Your task to perform on an android device: View the shopping cart on costco. Image 0: 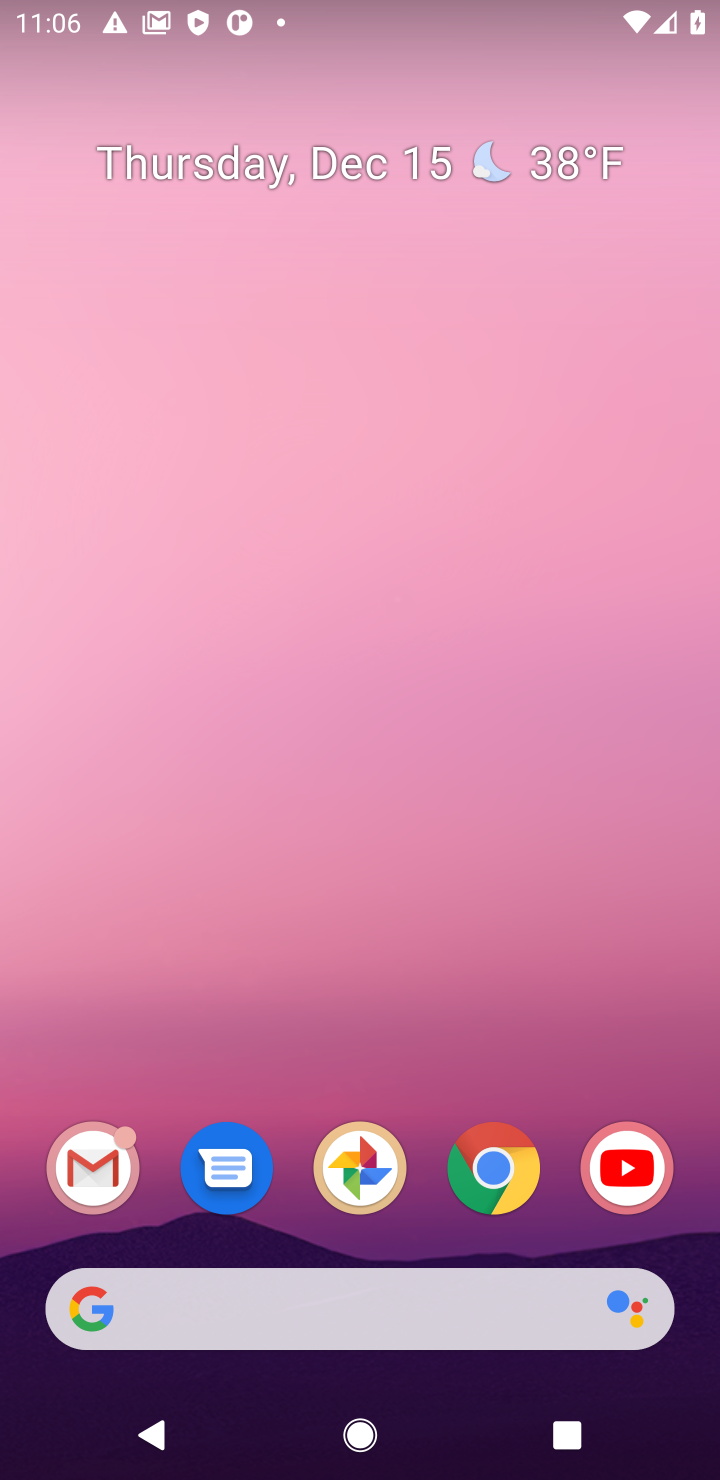
Step 0: click (508, 1167)
Your task to perform on an android device: View the shopping cart on costco. Image 1: 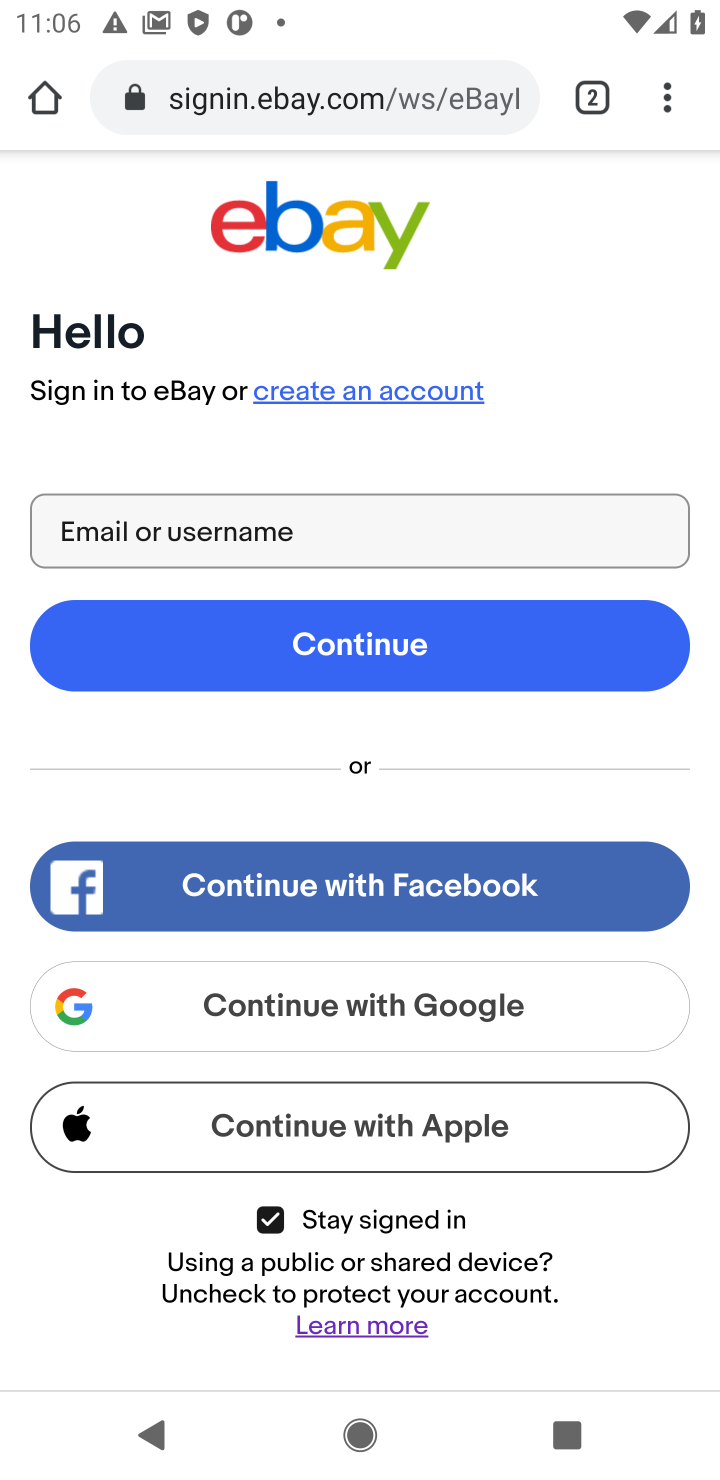
Step 1: click (372, 73)
Your task to perform on an android device: View the shopping cart on costco. Image 2: 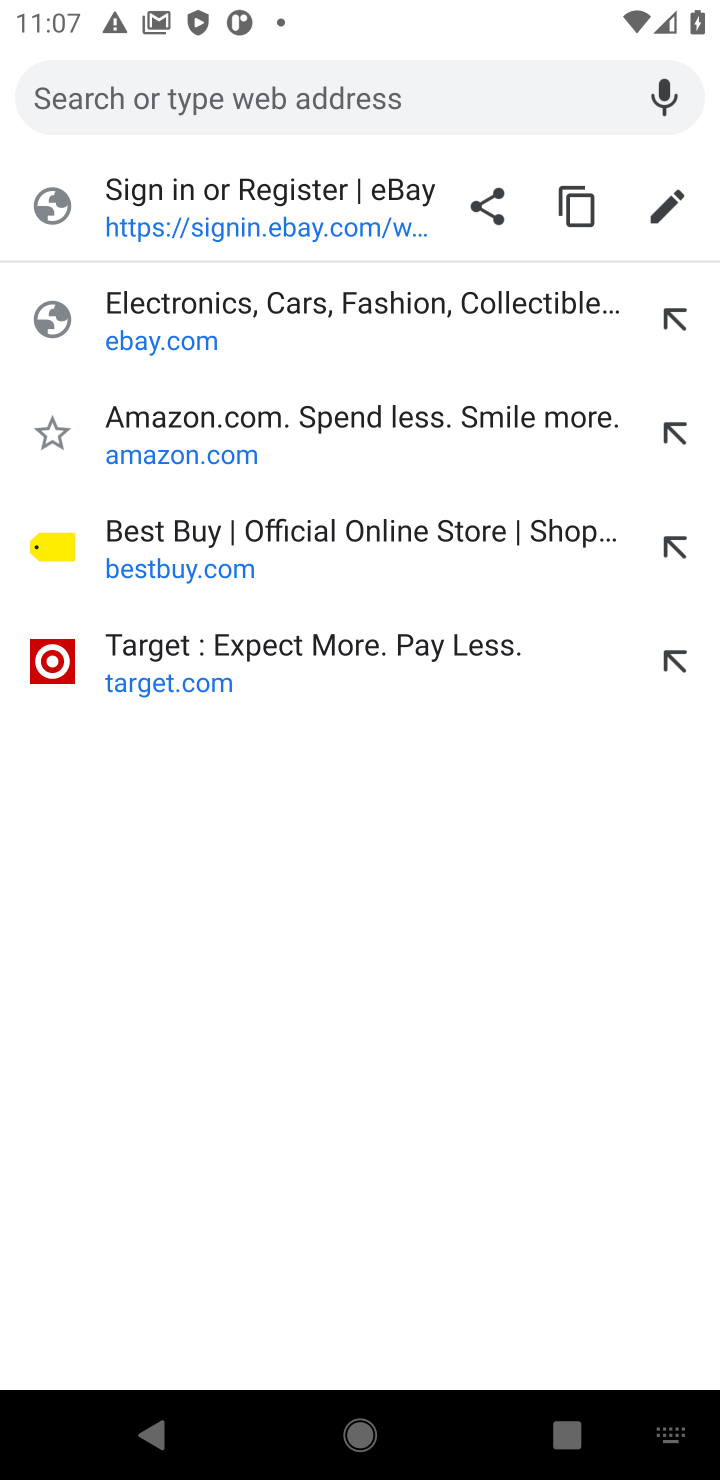
Step 2: type "costco"
Your task to perform on an android device: View the shopping cart on costco. Image 3: 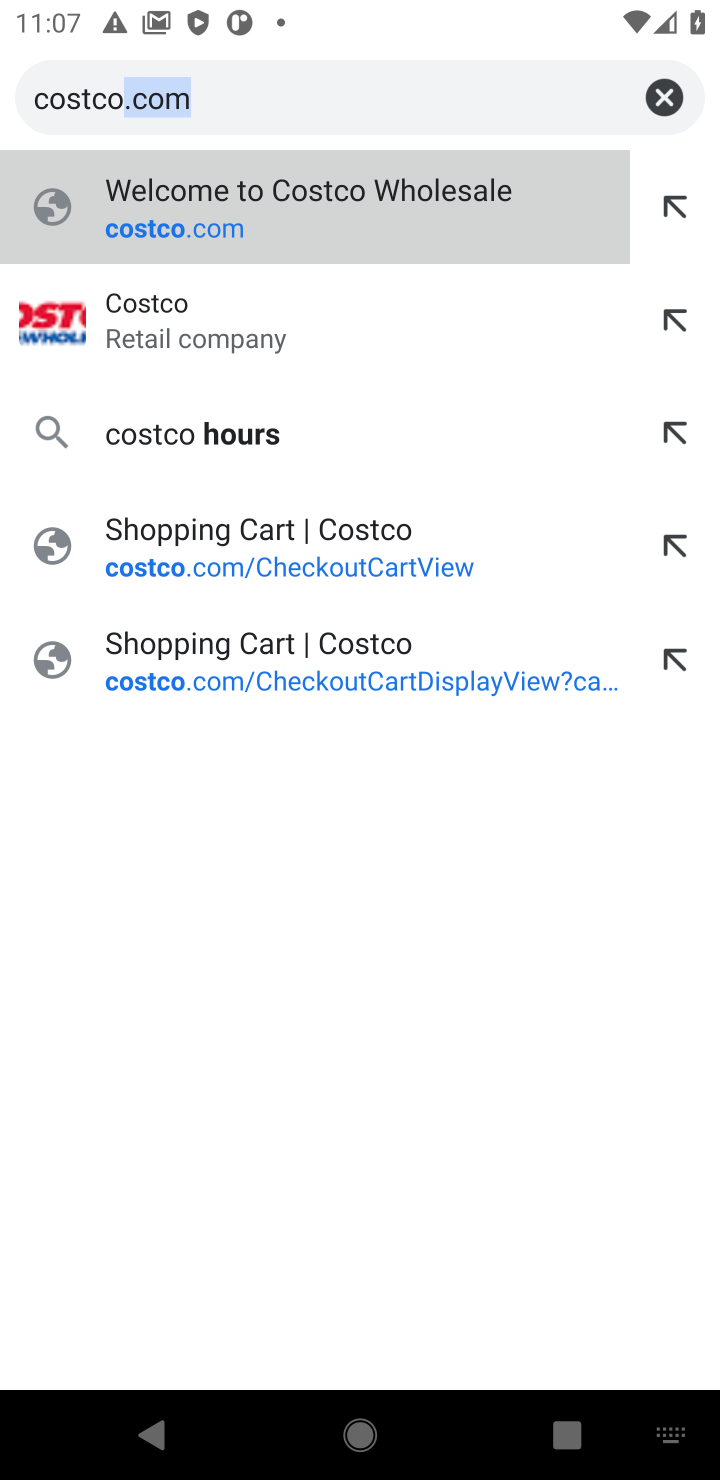
Step 3: click (488, 188)
Your task to perform on an android device: View the shopping cart on costco. Image 4: 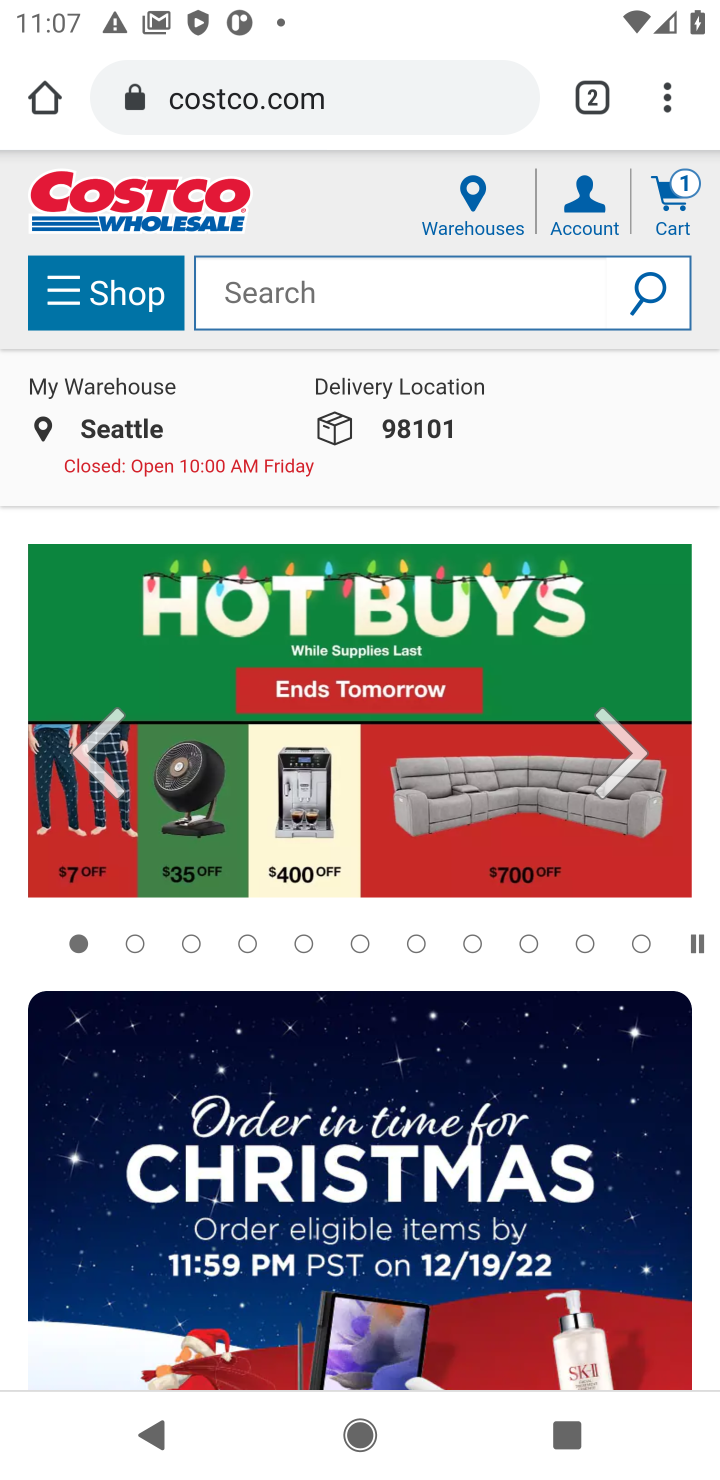
Step 4: click (682, 211)
Your task to perform on an android device: View the shopping cart on costco. Image 5: 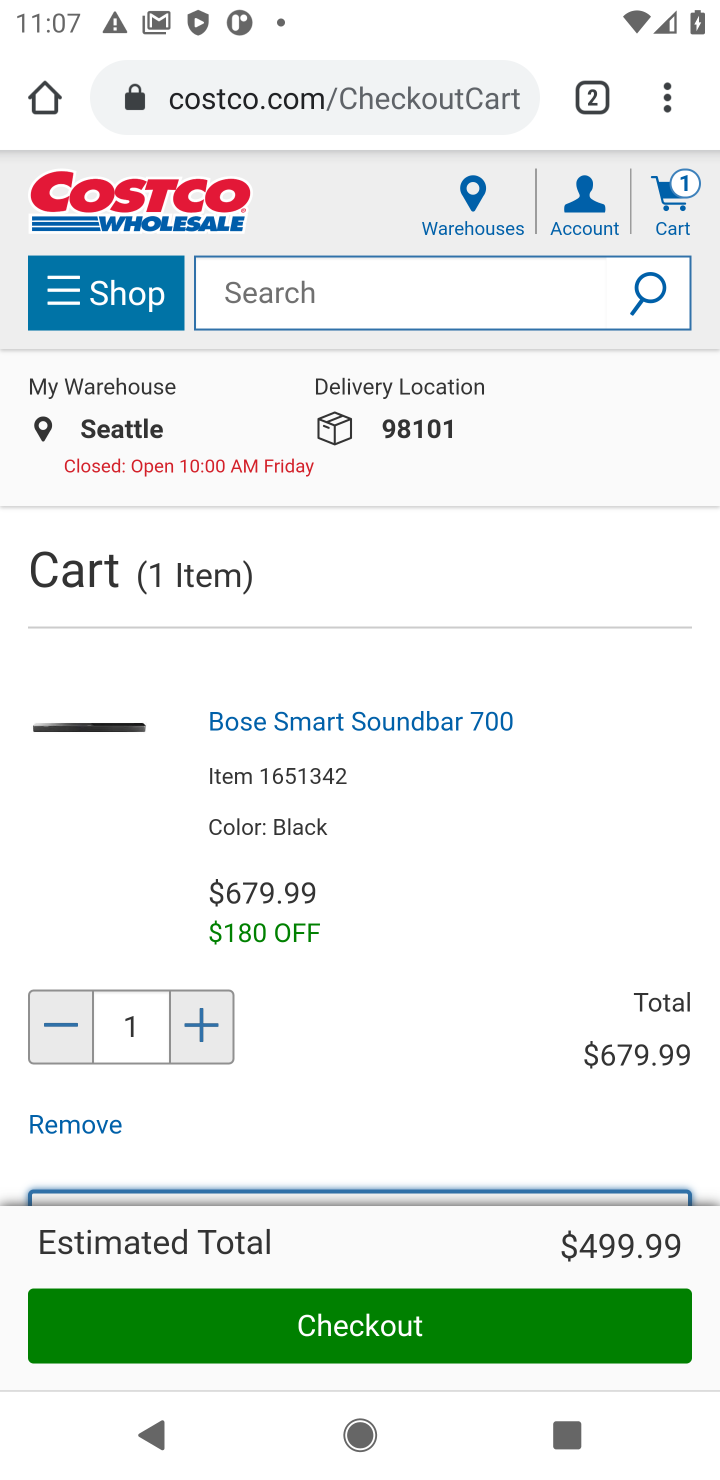
Step 5: click (82, 1128)
Your task to perform on an android device: View the shopping cart on costco. Image 6: 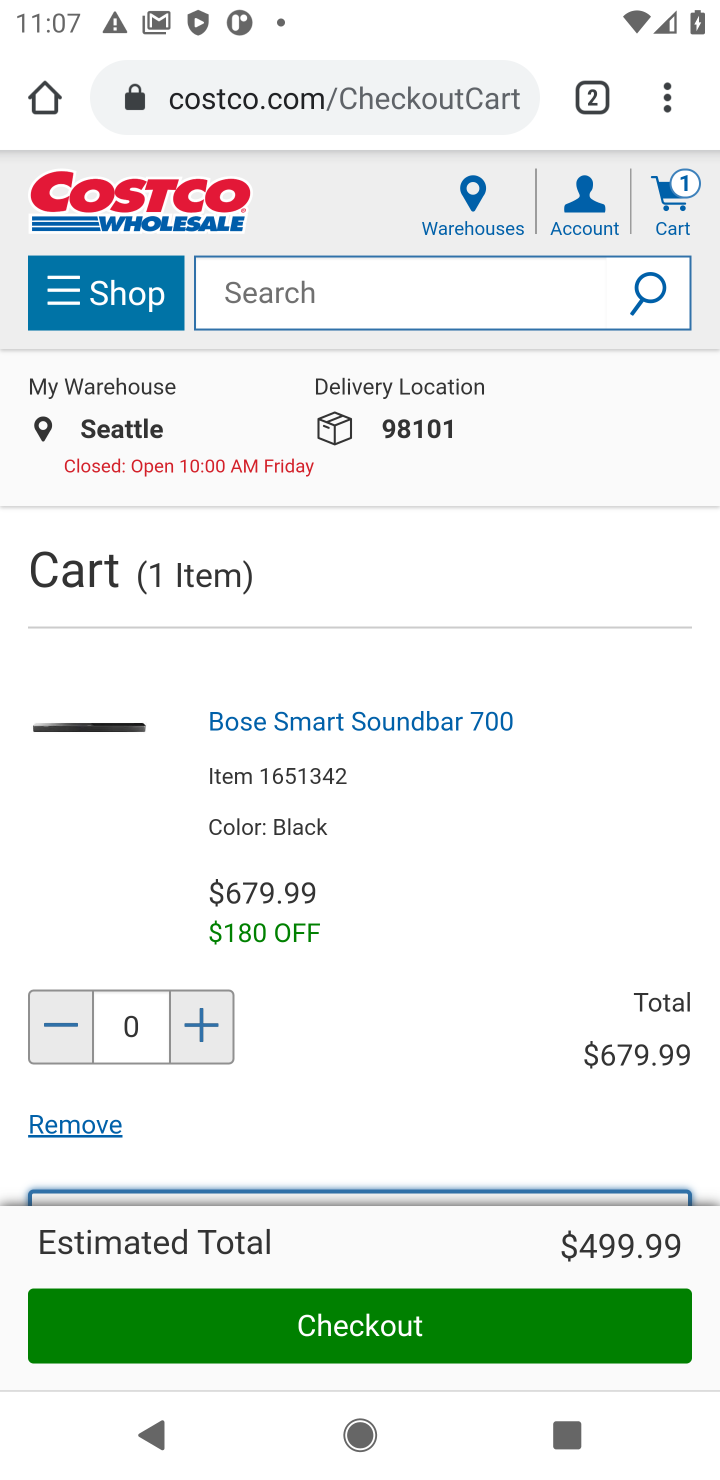
Step 6: click (448, 285)
Your task to perform on an android device: View the shopping cart on costco. Image 7: 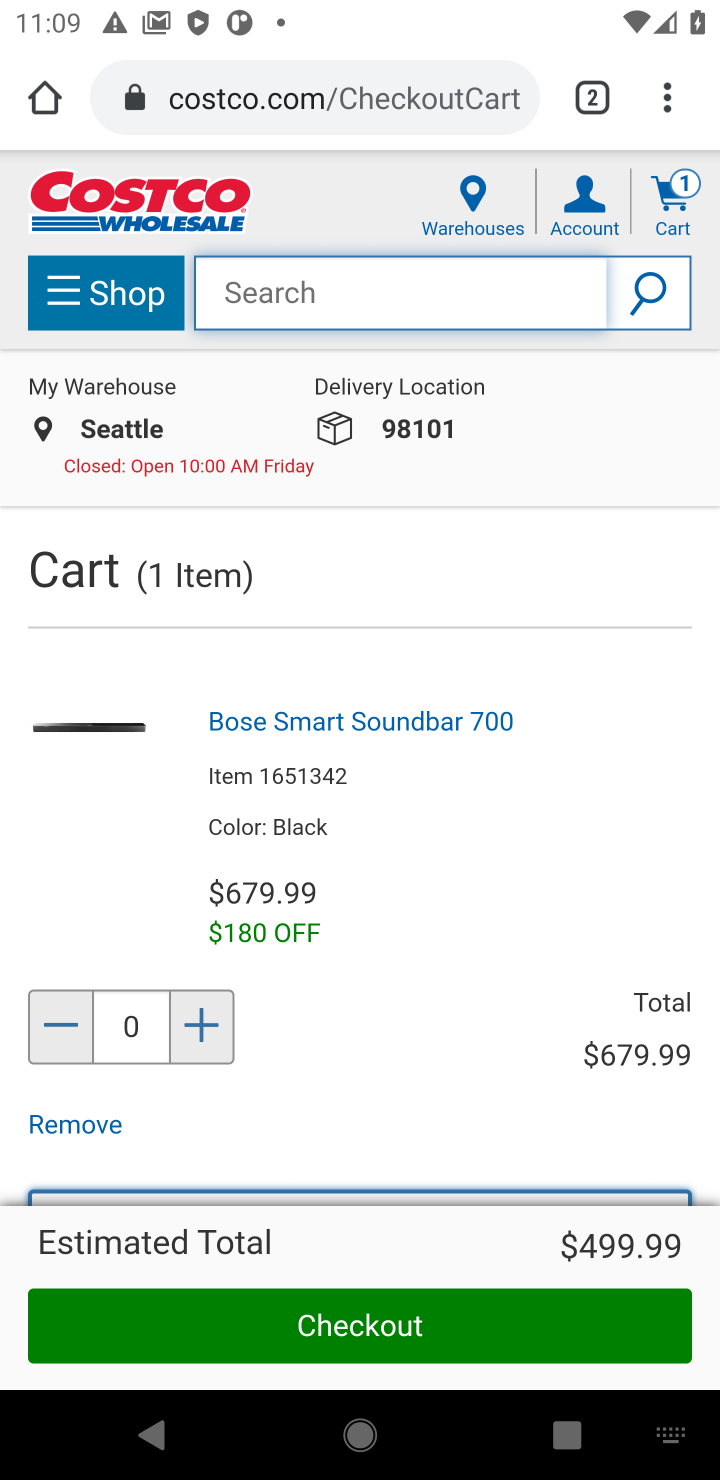
Step 7: task complete